Your task to perform on an android device: add a contact in the contacts app Image 0: 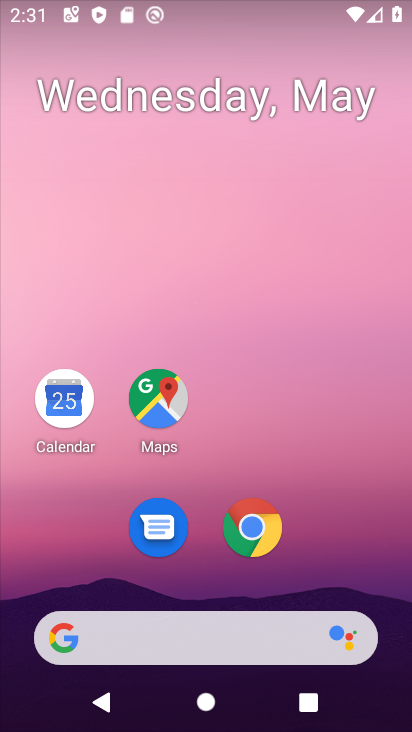
Step 0: drag from (97, 0) to (399, 233)
Your task to perform on an android device: add a contact in the contacts app Image 1: 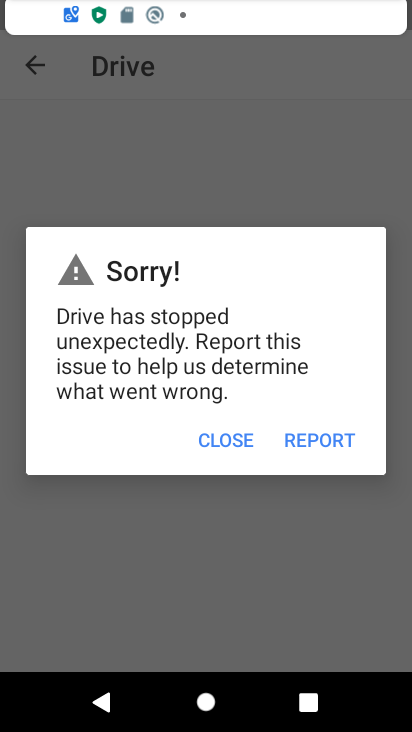
Step 1: click (220, 442)
Your task to perform on an android device: add a contact in the contacts app Image 2: 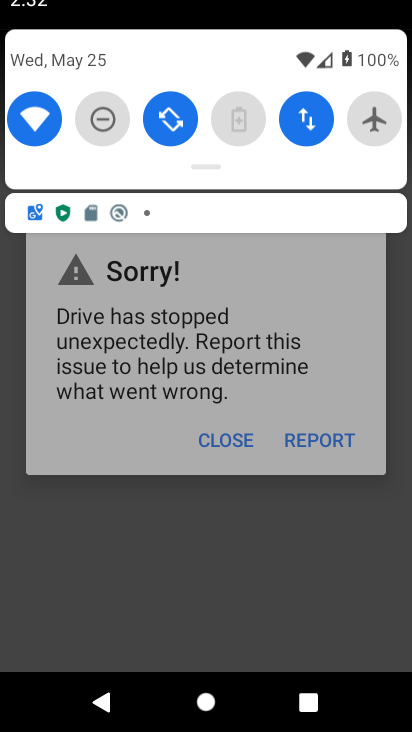
Step 2: click (221, 441)
Your task to perform on an android device: add a contact in the contacts app Image 3: 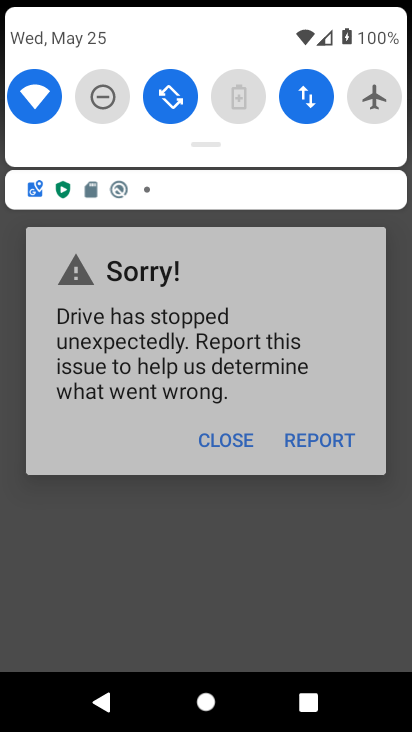
Step 3: click (227, 441)
Your task to perform on an android device: add a contact in the contacts app Image 4: 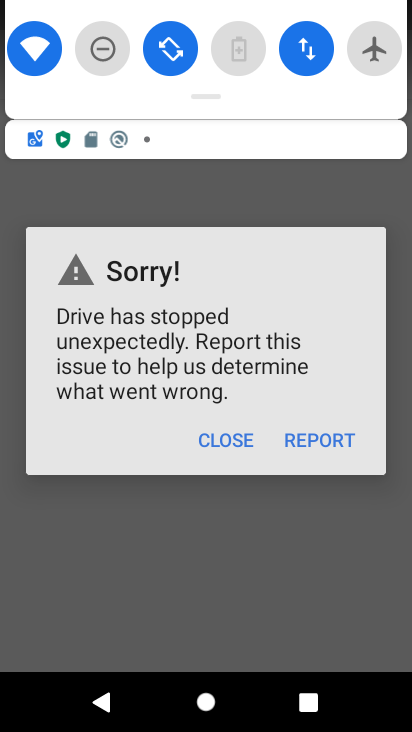
Step 4: click (227, 441)
Your task to perform on an android device: add a contact in the contacts app Image 5: 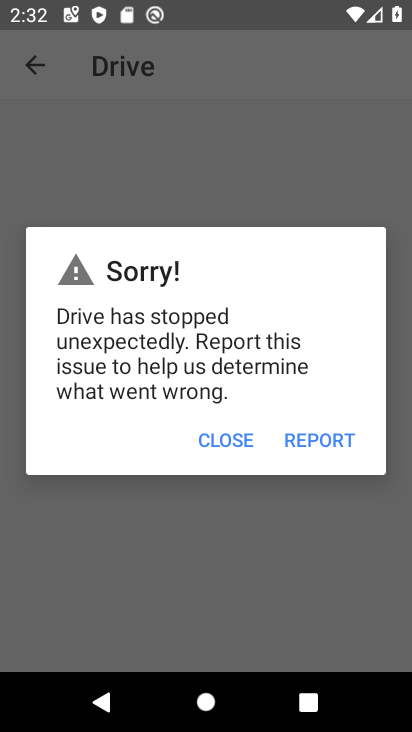
Step 5: click (234, 446)
Your task to perform on an android device: add a contact in the contacts app Image 6: 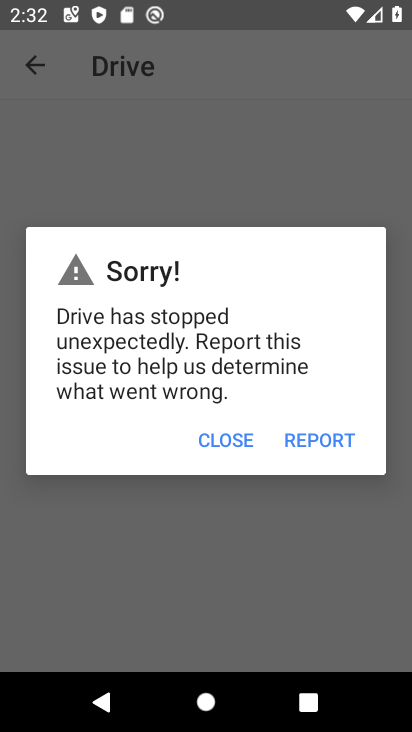
Step 6: click (234, 446)
Your task to perform on an android device: add a contact in the contacts app Image 7: 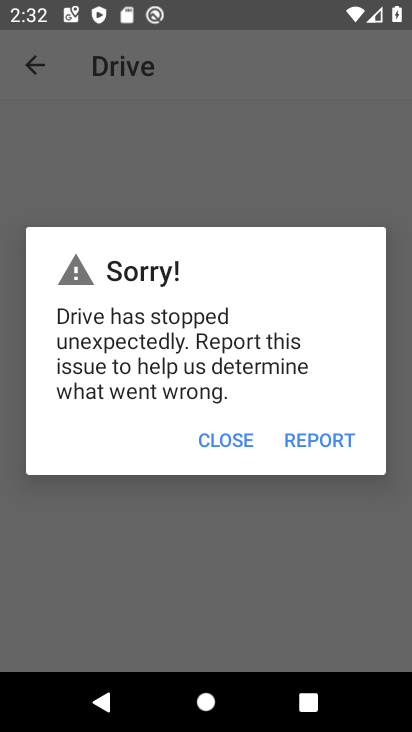
Step 7: click (236, 446)
Your task to perform on an android device: add a contact in the contacts app Image 8: 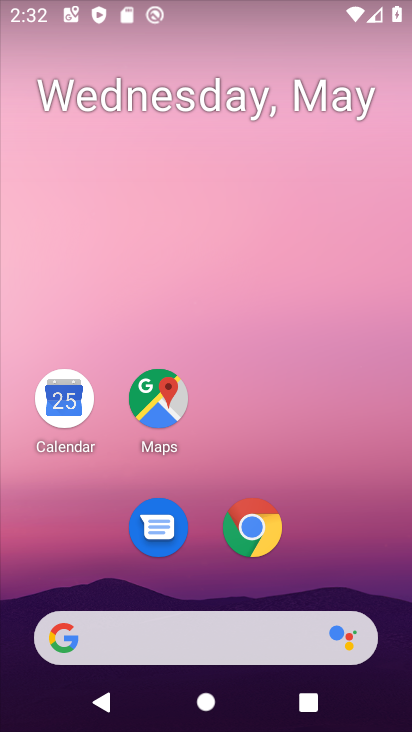
Step 8: click (177, 52)
Your task to perform on an android device: add a contact in the contacts app Image 9: 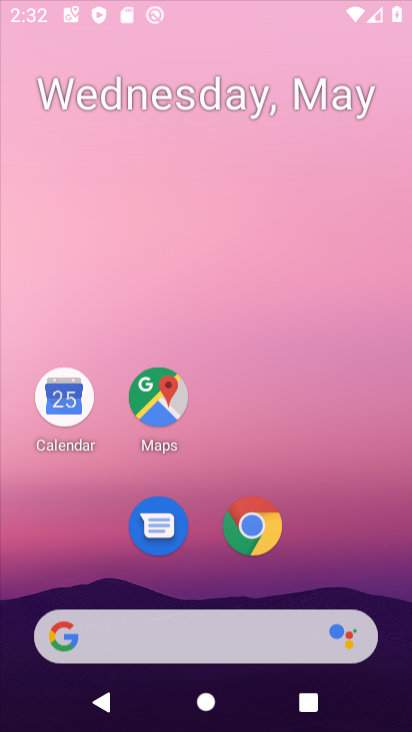
Step 9: drag from (232, 481) to (149, 97)
Your task to perform on an android device: add a contact in the contacts app Image 10: 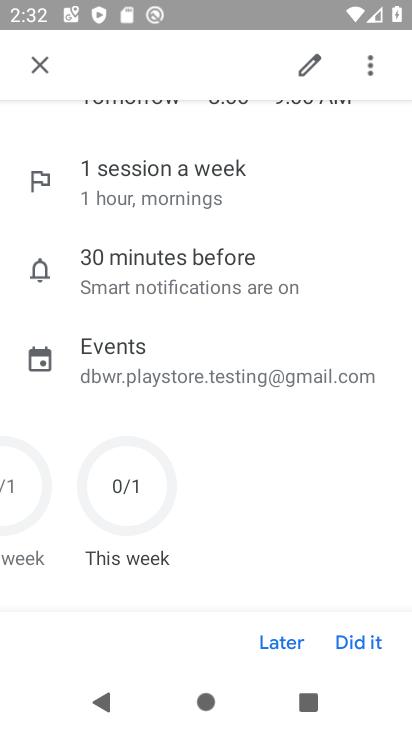
Step 10: click (279, 654)
Your task to perform on an android device: add a contact in the contacts app Image 11: 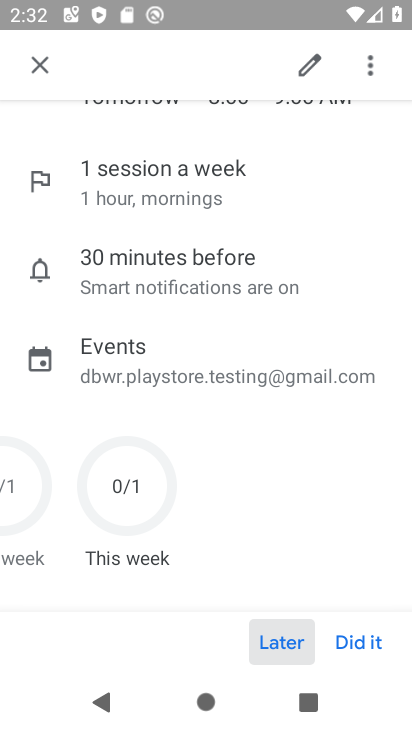
Step 11: click (278, 651)
Your task to perform on an android device: add a contact in the contacts app Image 12: 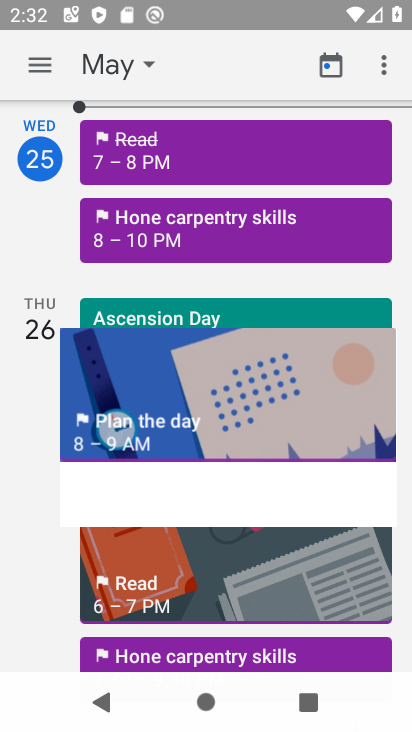
Step 12: click (279, 639)
Your task to perform on an android device: add a contact in the contacts app Image 13: 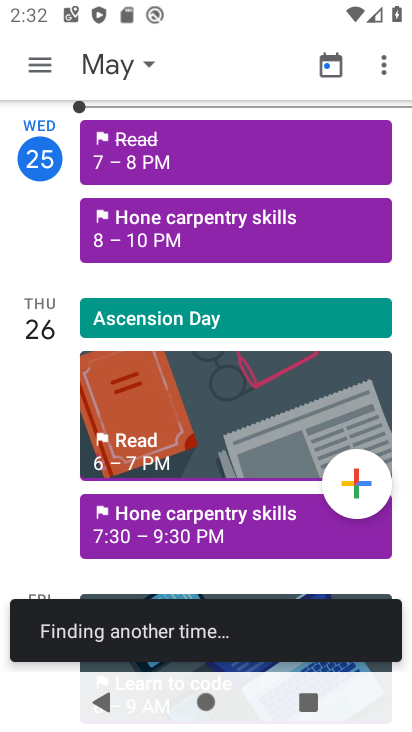
Step 13: press back button
Your task to perform on an android device: add a contact in the contacts app Image 14: 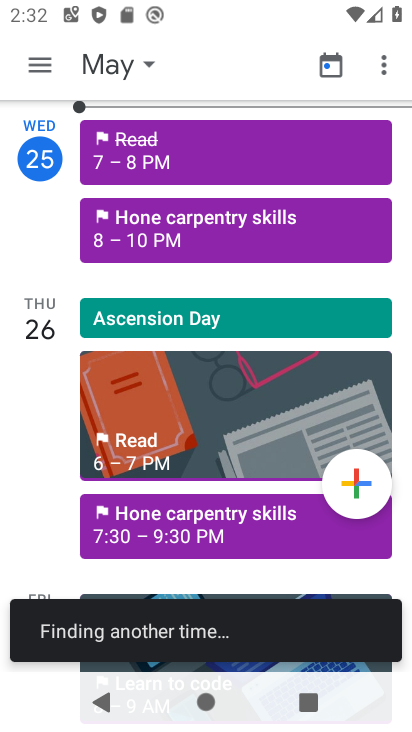
Step 14: press back button
Your task to perform on an android device: add a contact in the contacts app Image 15: 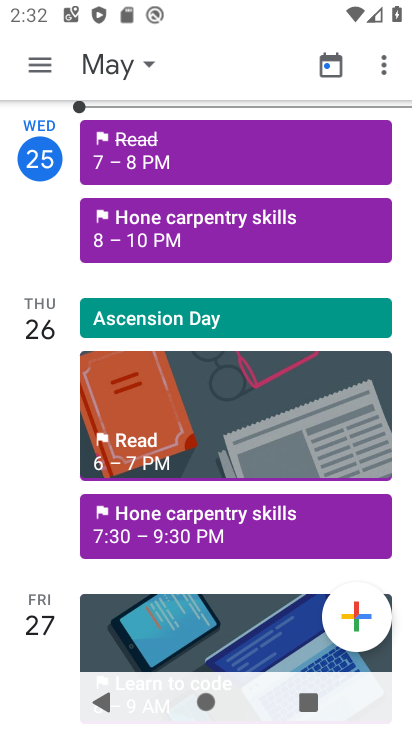
Step 15: press back button
Your task to perform on an android device: add a contact in the contacts app Image 16: 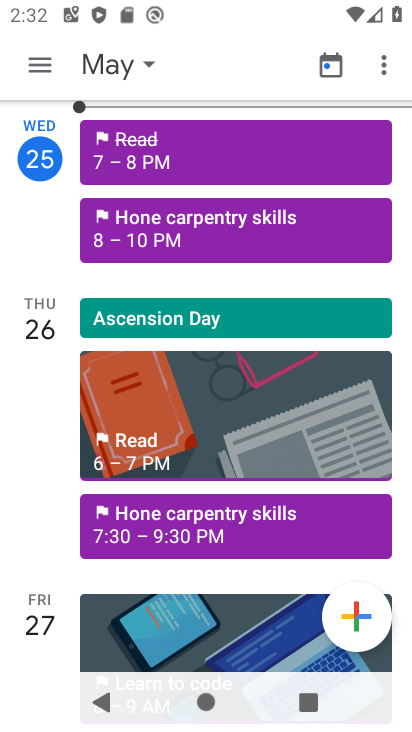
Step 16: press home button
Your task to perform on an android device: add a contact in the contacts app Image 17: 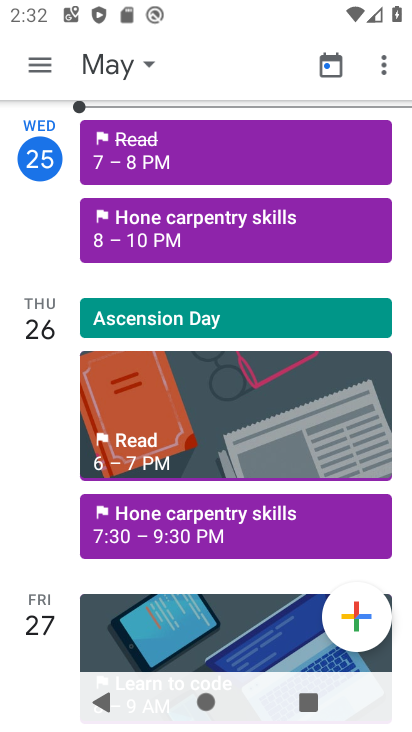
Step 17: press back button
Your task to perform on an android device: add a contact in the contacts app Image 18: 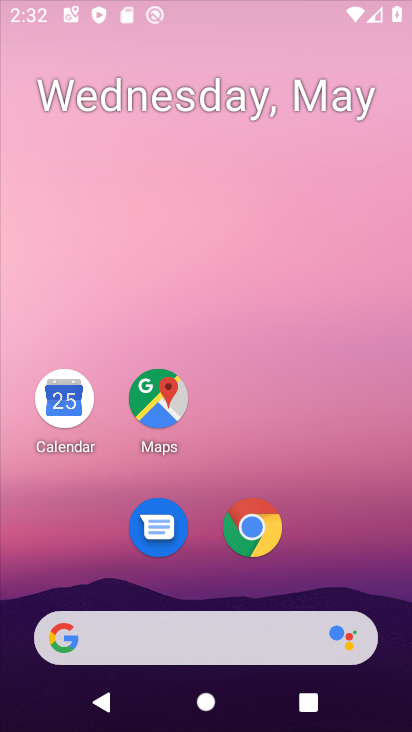
Step 18: press back button
Your task to perform on an android device: add a contact in the contacts app Image 19: 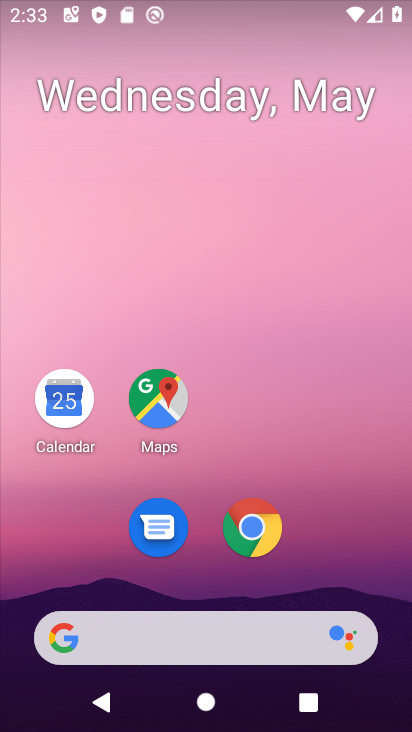
Step 19: drag from (330, 509) to (146, 86)
Your task to perform on an android device: add a contact in the contacts app Image 20: 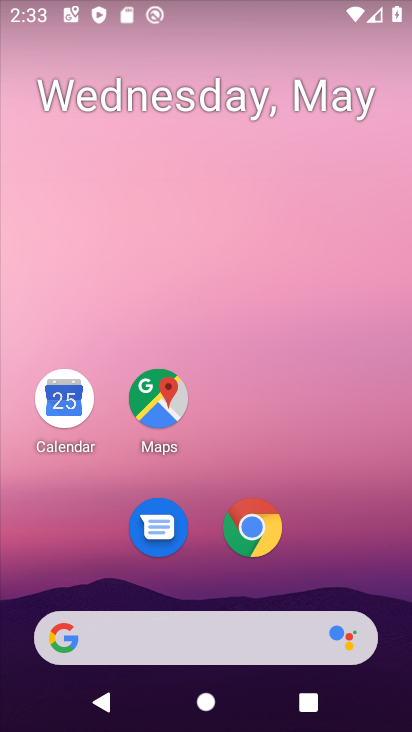
Step 20: drag from (322, 604) to (63, 47)
Your task to perform on an android device: add a contact in the contacts app Image 21: 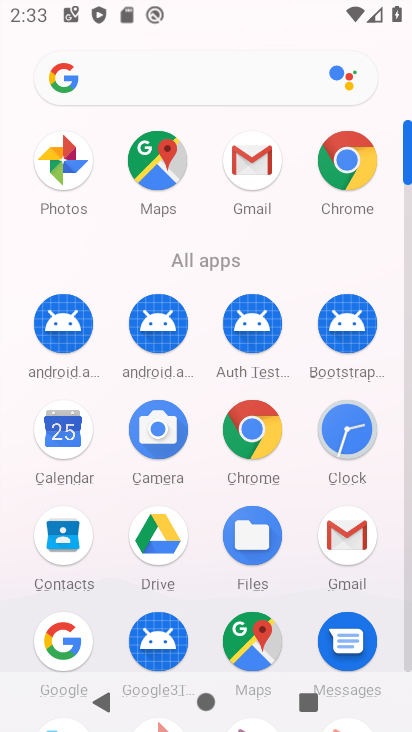
Step 21: drag from (208, 536) to (149, 302)
Your task to perform on an android device: add a contact in the contacts app Image 22: 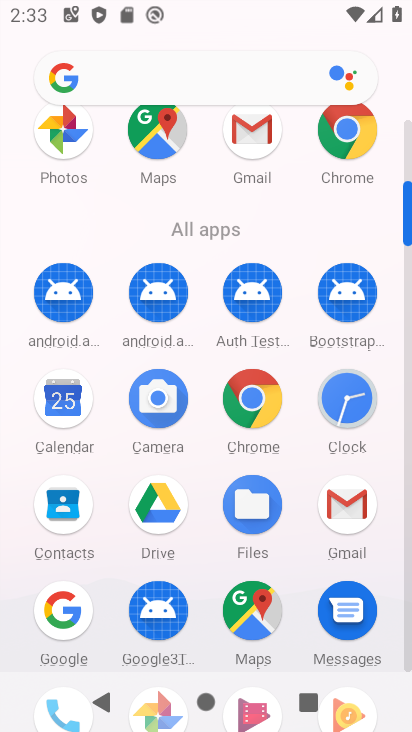
Step 22: drag from (214, 559) to (179, 278)
Your task to perform on an android device: add a contact in the contacts app Image 23: 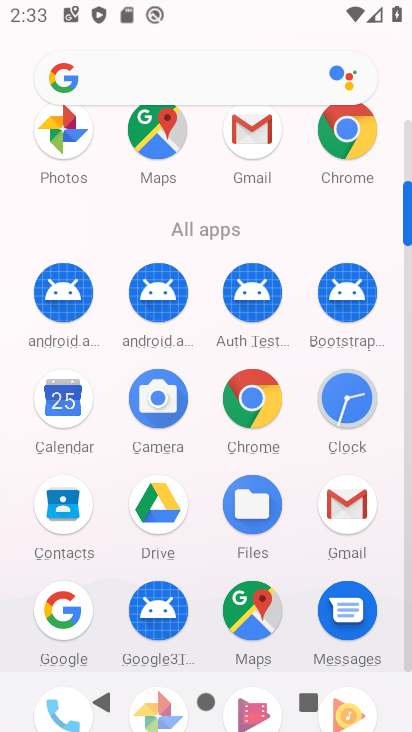
Step 23: drag from (196, 482) to (168, 227)
Your task to perform on an android device: add a contact in the contacts app Image 24: 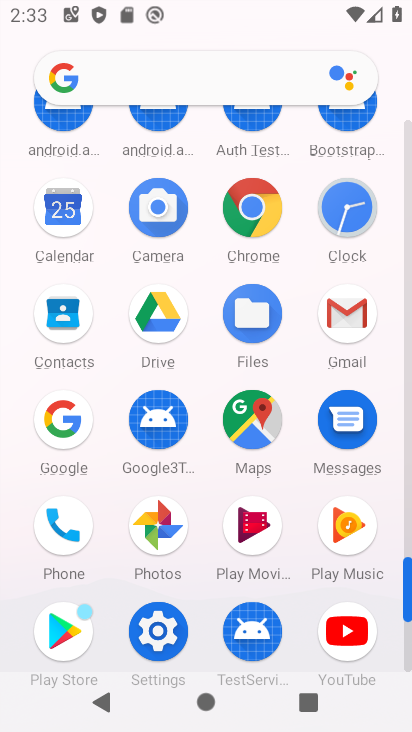
Step 24: drag from (193, 500) to (204, 236)
Your task to perform on an android device: add a contact in the contacts app Image 25: 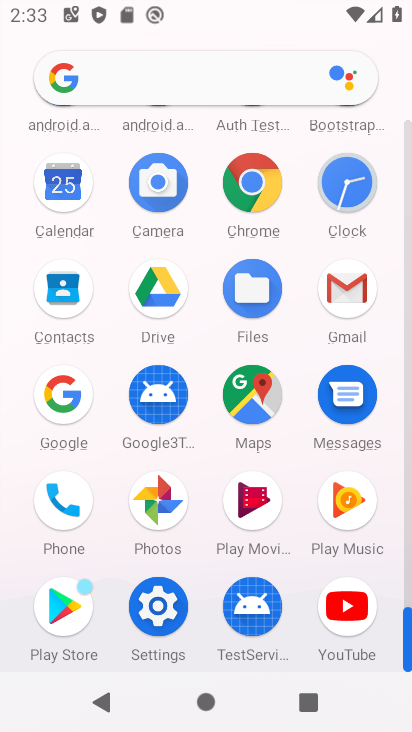
Step 25: click (59, 291)
Your task to perform on an android device: add a contact in the contacts app Image 26: 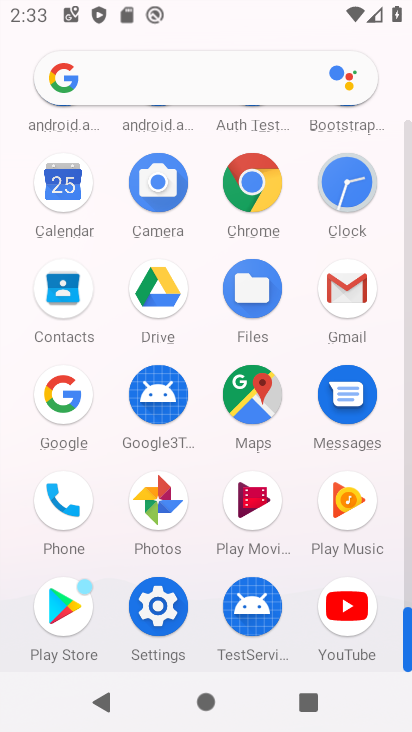
Step 26: click (59, 291)
Your task to perform on an android device: add a contact in the contacts app Image 27: 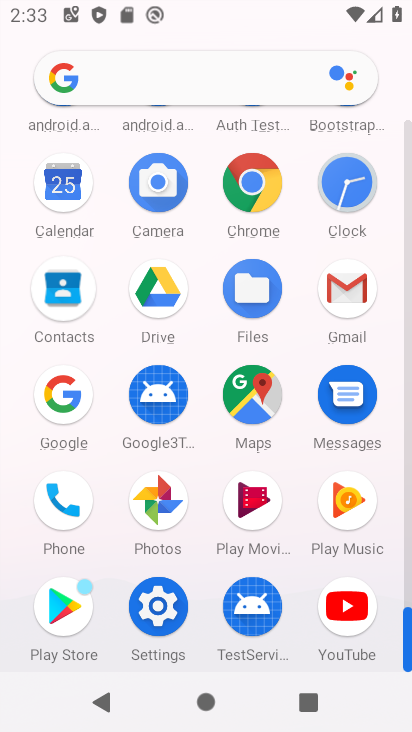
Step 27: click (59, 291)
Your task to perform on an android device: add a contact in the contacts app Image 28: 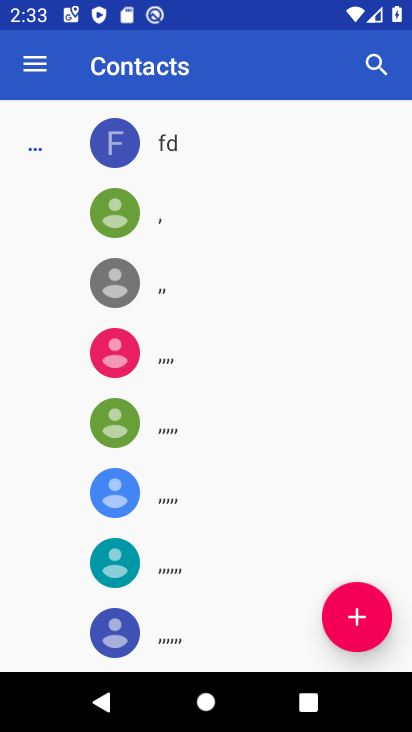
Step 28: click (354, 610)
Your task to perform on an android device: add a contact in the contacts app Image 29: 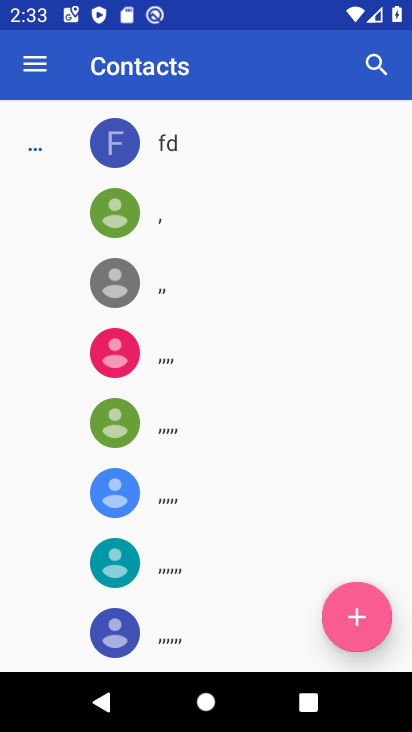
Step 29: click (354, 610)
Your task to perform on an android device: add a contact in the contacts app Image 30: 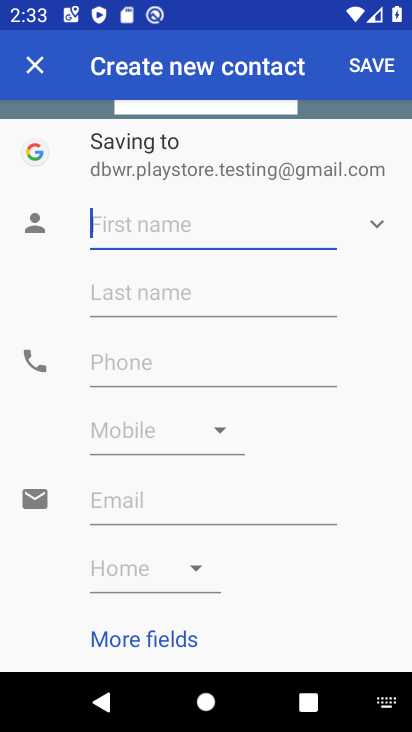
Step 30: type "jjhfjsfjhhfs"
Your task to perform on an android device: add a contact in the contacts app Image 31: 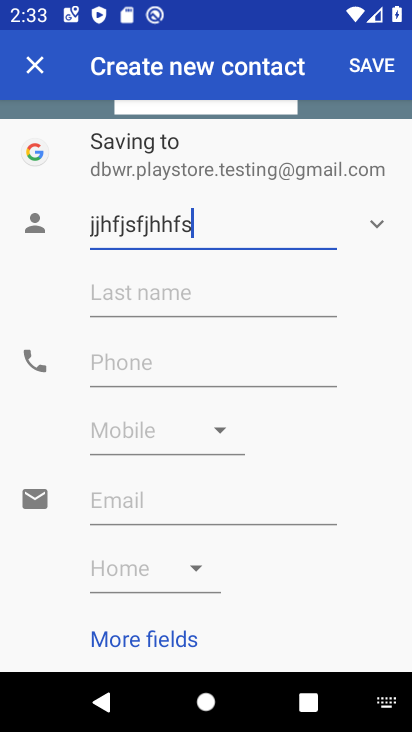
Step 31: click (109, 364)
Your task to perform on an android device: add a contact in the contacts app Image 32: 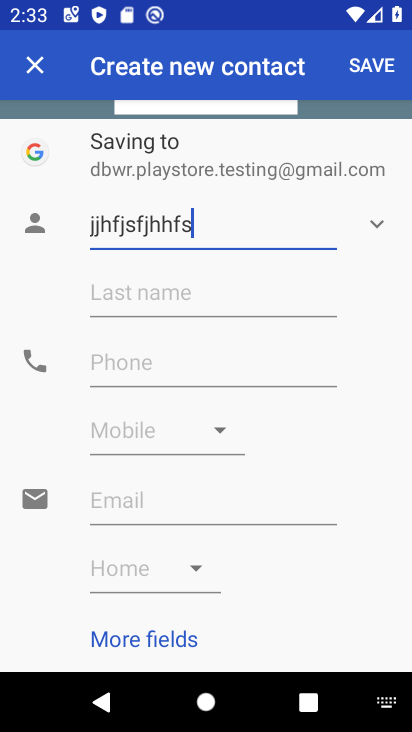
Step 32: click (109, 364)
Your task to perform on an android device: add a contact in the contacts app Image 33: 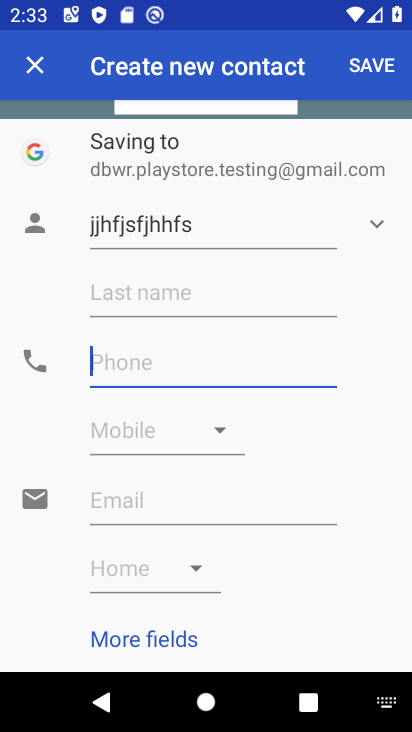
Step 33: click (109, 364)
Your task to perform on an android device: add a contact in the contacts app Image 34: 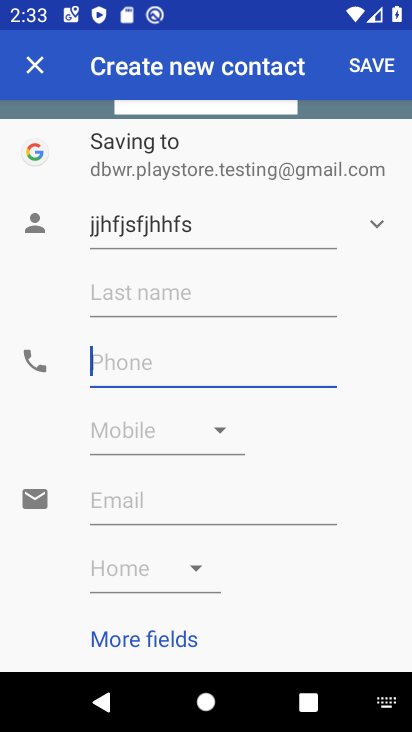
Step 34: click (109, 364)
Your task to perform on an android device: add a contact in the contacts app Image 35: 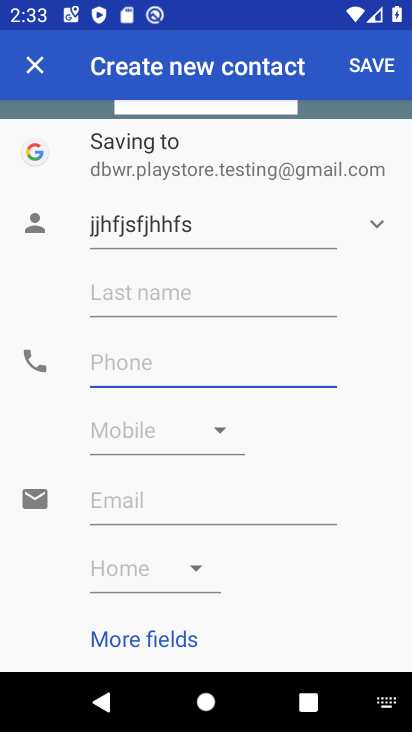
Step 35: type "678978927897889"
Your task to perform on an android device: add a contact in the contacts app Image 36: 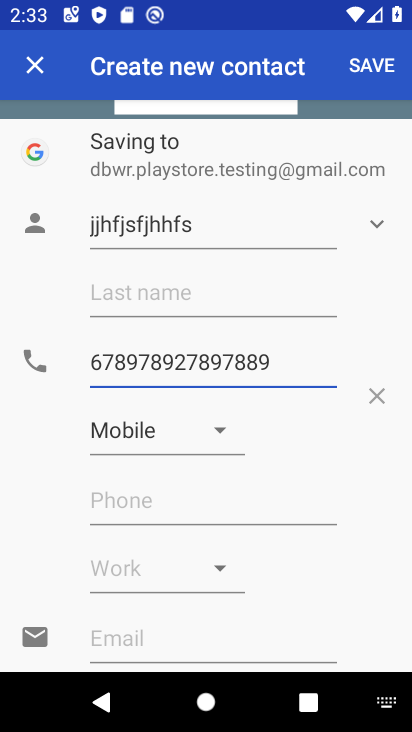
Step 36: click (367, 72)
Your task to perform on an android device: add a contact in the contacts app Image 37: 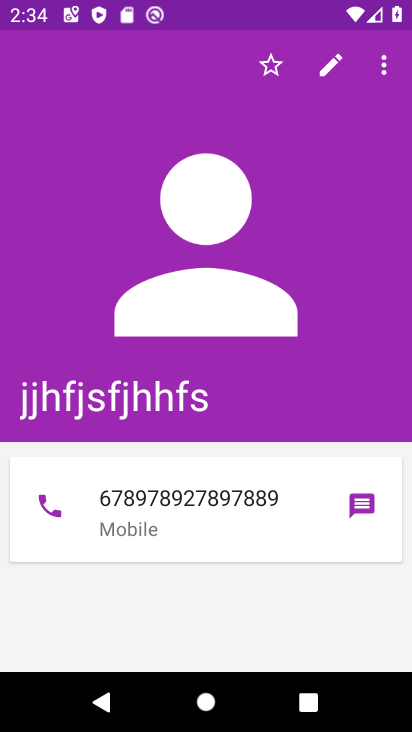
Step 37: task complete